Your task to perform on an android device: Is it going to rain tomorrow? Image 0: 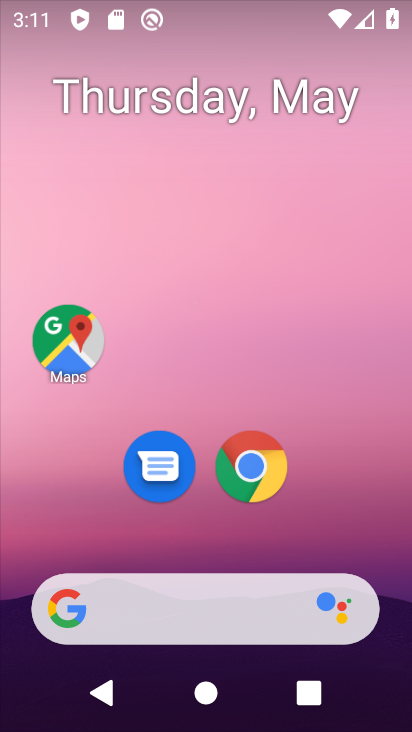
Step 0: drag from (367, 526) to (244, 127)
Your task to perform on an android device: Is it going to rain tomorrow? Image 1: 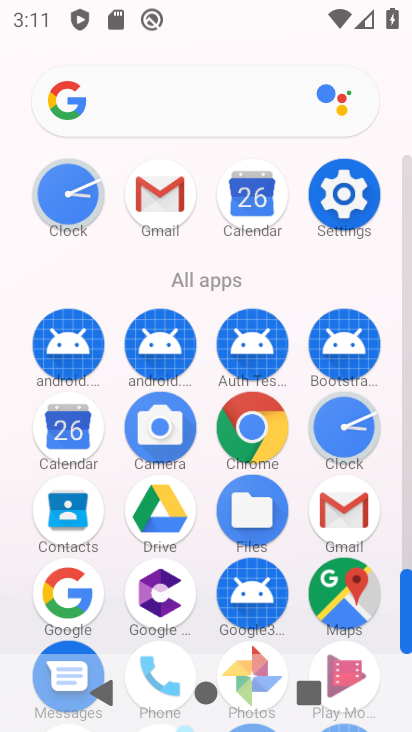
Step 1: click (231, 445)
Your task to perform on an android device: Is it going to rain tomorrow? Image 2: 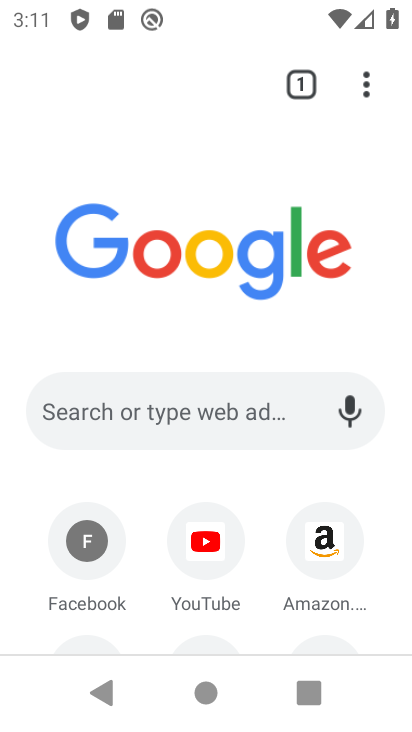
Step 2: click (258, 423)
Your task to perform on an android device: Is it going to rain tomorrow? Image 3: 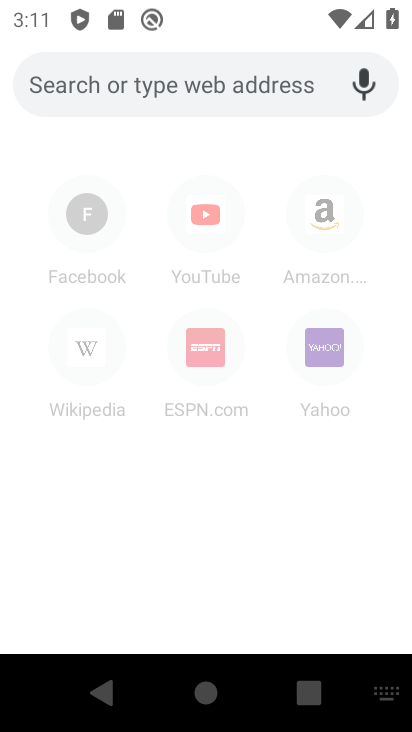
Step 3: type "Is it going to rain tomorrow?"
Your task to perform on an android device: Is it going to rain tomorrow? Image 4: 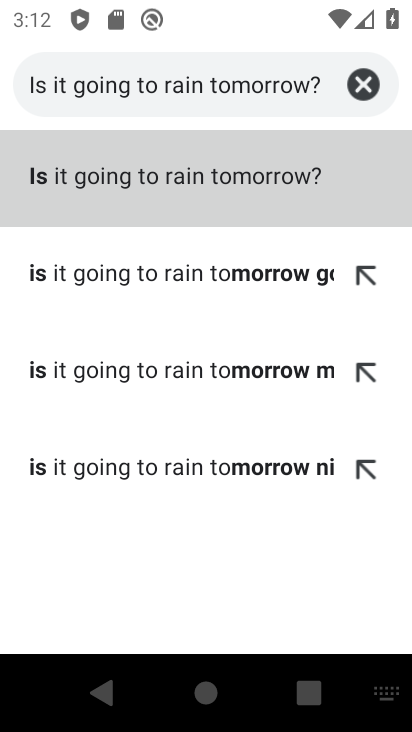
Step 4: click (252, 183)
Your task to perform on an android device: Is it going to rain tomorrow? Image 5: 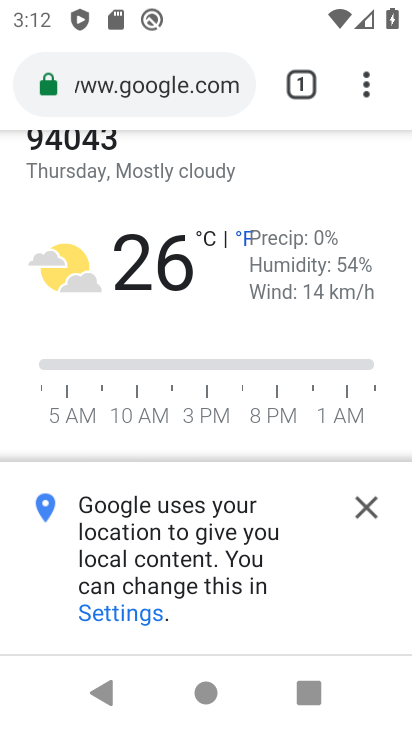
Step 5: click (372, 503)
Your task to perform on an android device: Is it going to rain tomorrow? Image 6: 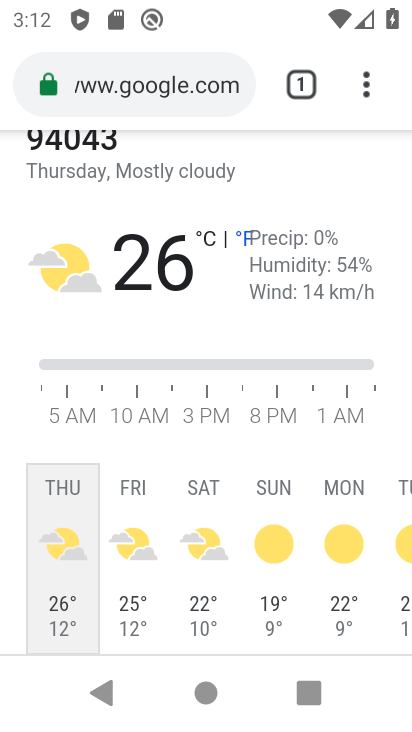
Step 6: click (143, 522)
Your task to perform on an android device: Is it going to rain tomorrow? Image 7: 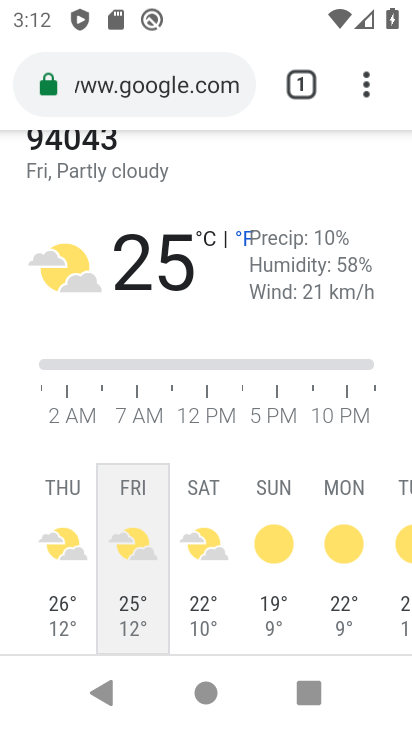
Step 7: task complete